Your task to perform on an android device: delete browsing data in the chrome app Image 0: 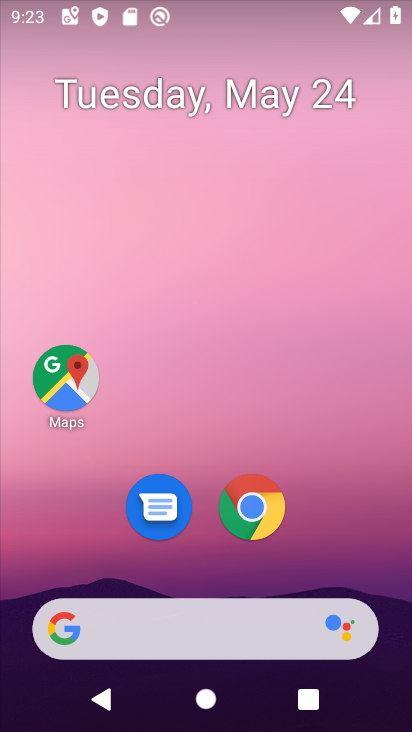
Step 0: click (238, 510)
Your task to perform on an android device: delete browsing data in the chrome app Image 1: 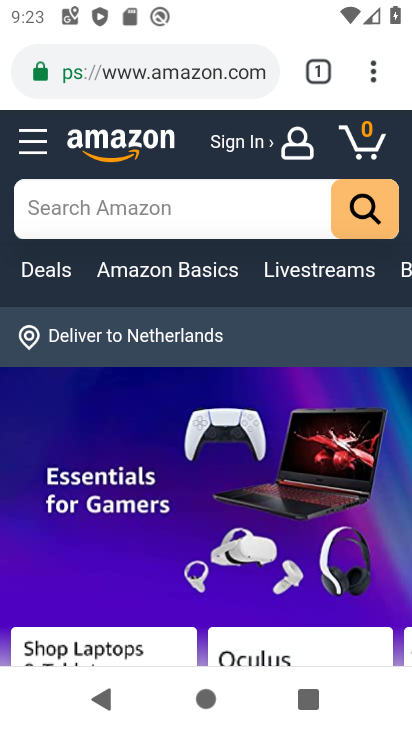
Step 1: drag from (388, 69) to (227, 496)
Your task to perform on an android device: delete browsing data in the chrome app Image 2: 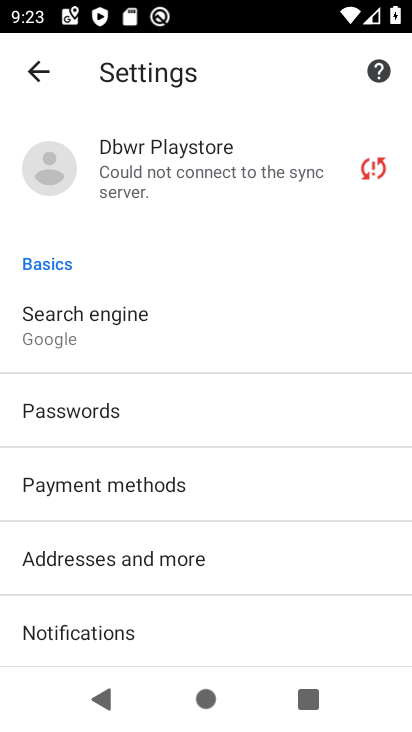
Step 2: drag from (147, 607) to (204, 231)
Your task to perform on an android device: delete browsing data in the chrome app Image 3: 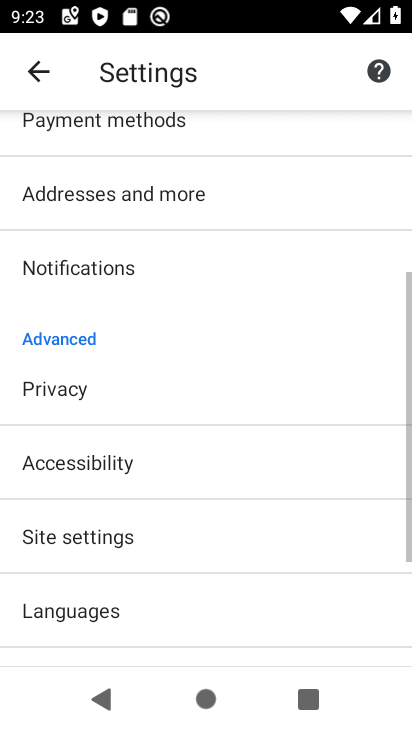
Step 3: click (103, 405)
Your task to perform on an android device: delete browsing data in the chrome app Image 4: 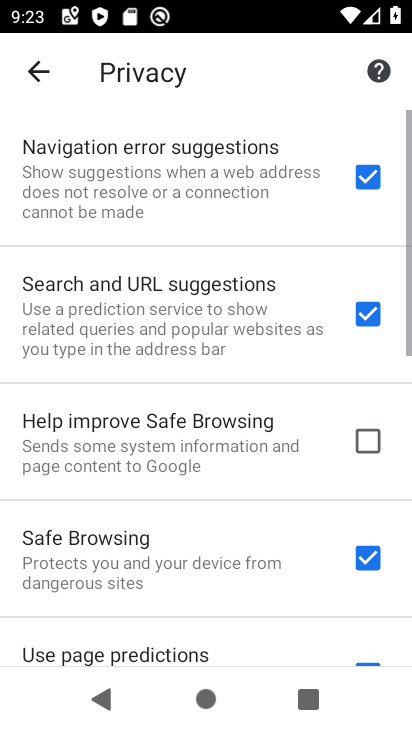
Step 4: drag from (156, 486) to (260, 91)
Your task to perform on an android device: delete browsing data in the chrome app Image 5: 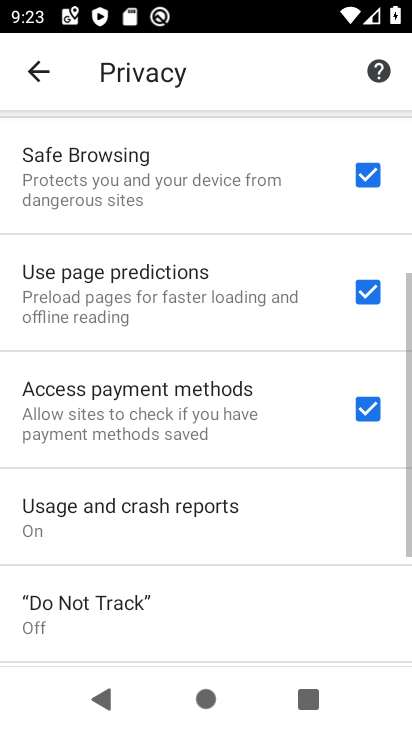
Step 5: drag from (131, 594) to (216, 239)
Your task to perform on an android device: delete browsing data in the chrome app Image 6: 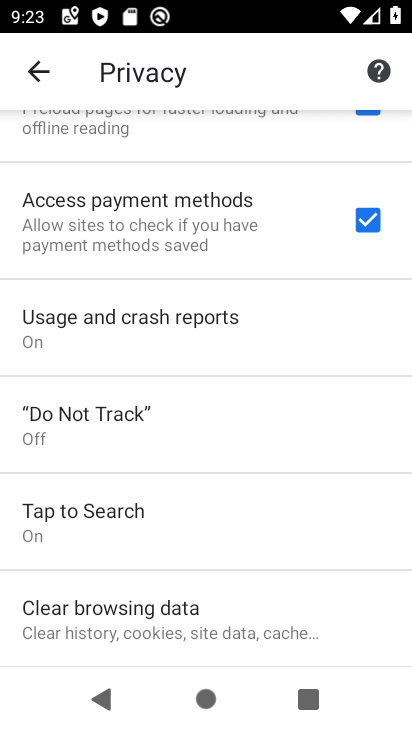
Step 6: click (135, 647)
Your task to perform on an android device: delete browsing data in the chrome app Image 7: 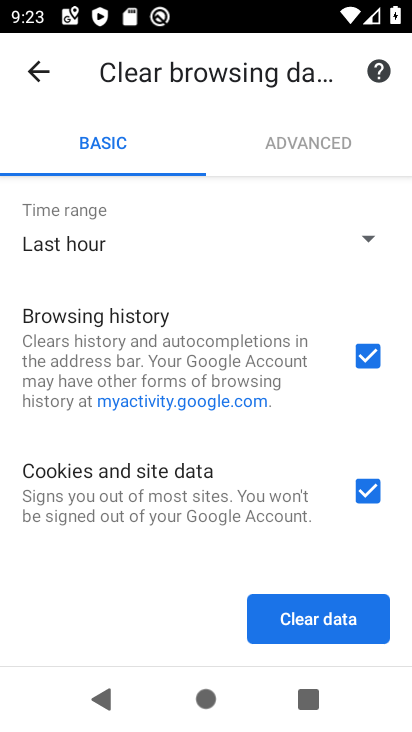
Step 7: click (334, 615)
Your task to perform on an android device: delete browsing data in the chrome app Image 8: 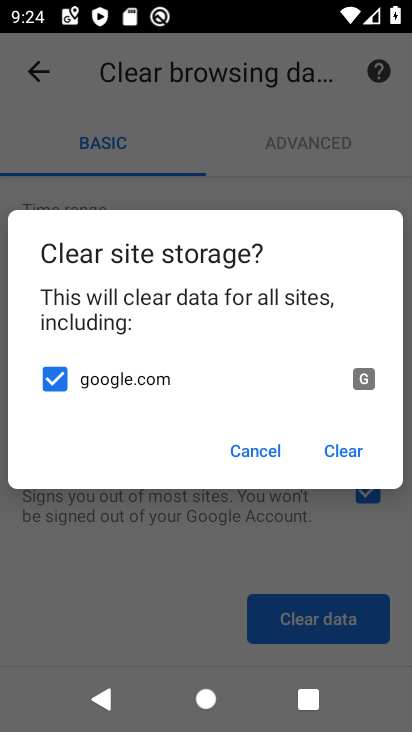
Step 8: click (338, 452)
Your task to perform on an android device: delete browsing data in the chrome app Image 9: 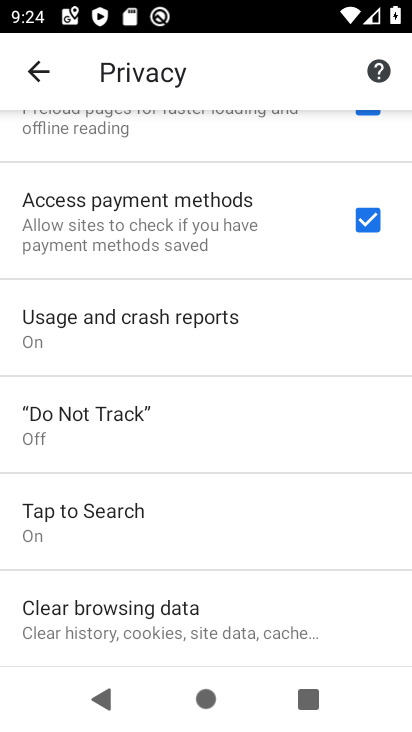
Step 9: task complete